Your task to perform on an android device: Go to Android settings Image 0: 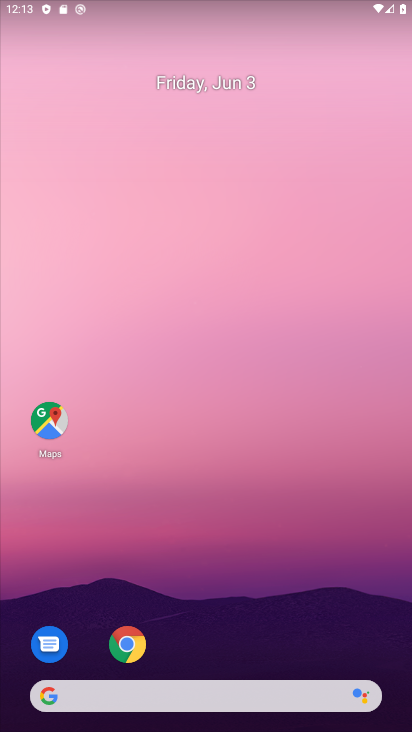
Step 0: drag from (275, 621) to (283, 10)
Your task to perform on an android device: Go to Android settings Image 1: 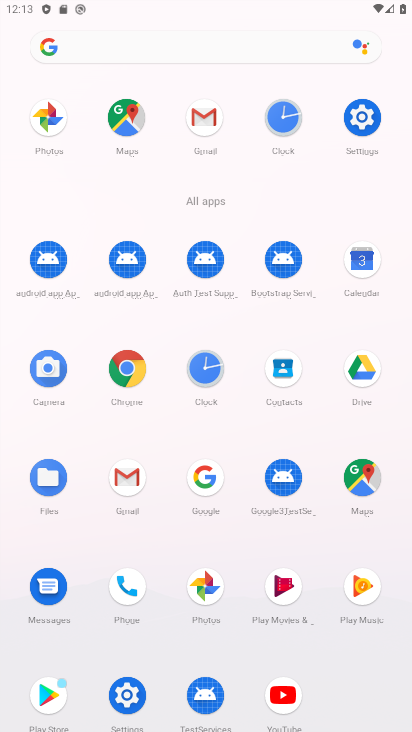
Step 1: click (359, 125)
Your task to perform on an android device: Go to Android settings Image 2: 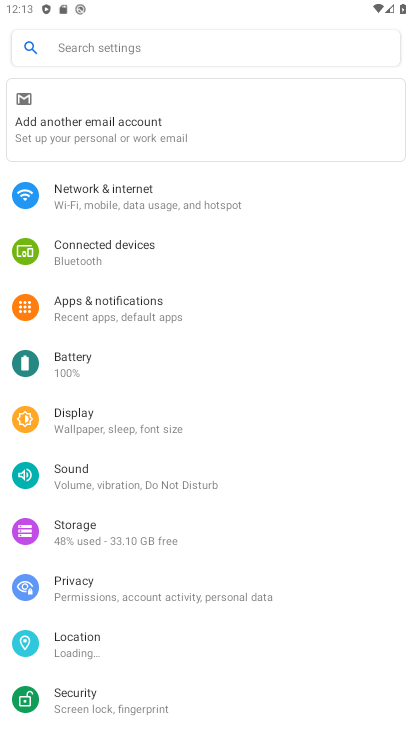
Step 2: drag from (186, 631) to (219, 71)
Your task to perform on an android device: Go to Android settings Image 3: 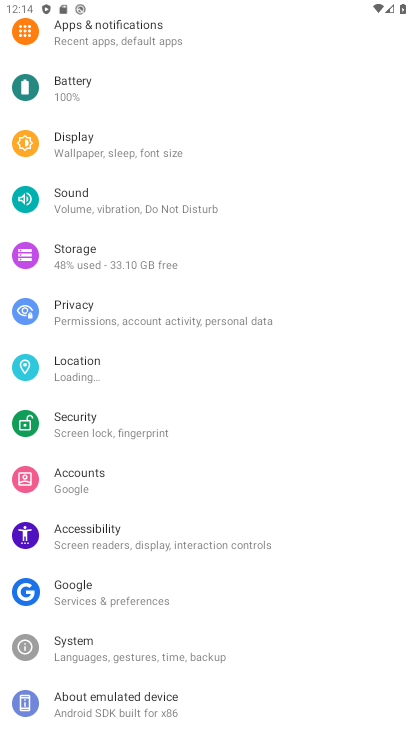
Step 3: click (95, 644)
Your task to perform on an android device: Go to Android settings Image 4: 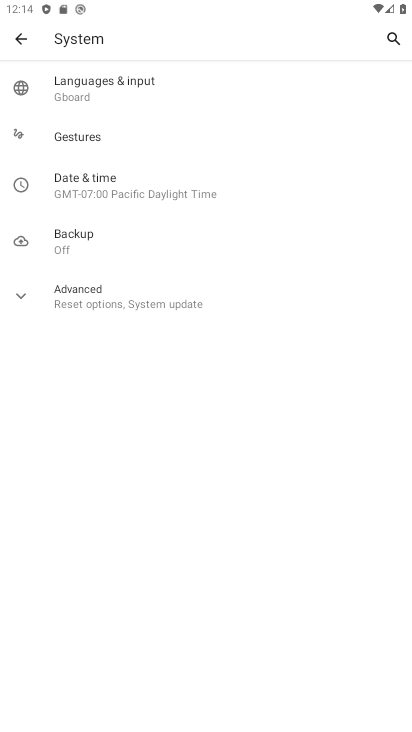
Step 4: task complete